Your task to perform on an android device: Open calendar and show me the third week of next month Image 0: 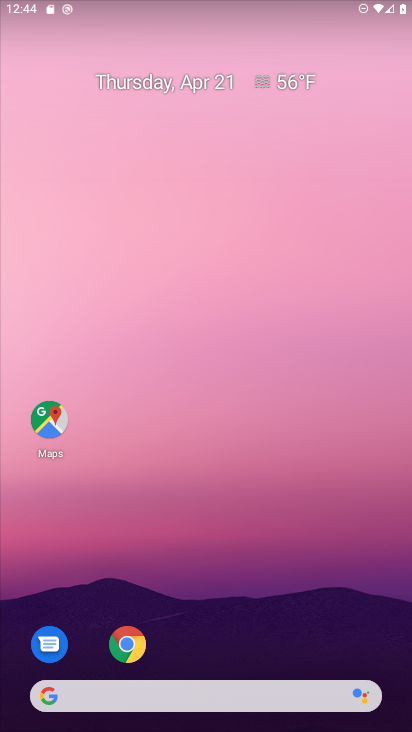
Step 0: drag from (234, 629) to (271, 106)
Your task to perform on an android device: Open calendar and show me the third week of next month Image 1: 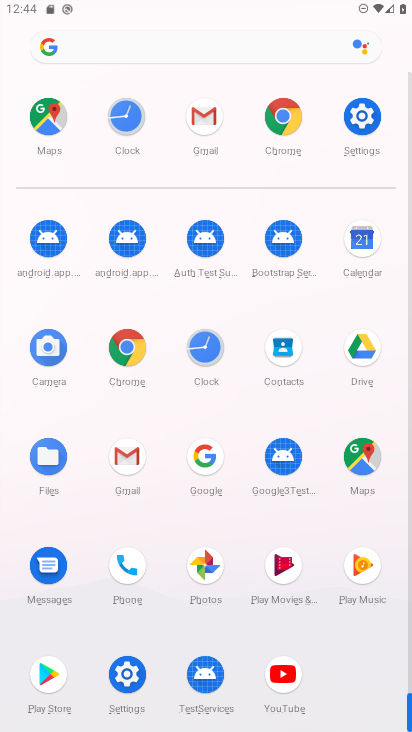
Step 1: click (356, 239)
Your task to perform on an android device: Open calendar and show me the third week of next month Image 2: 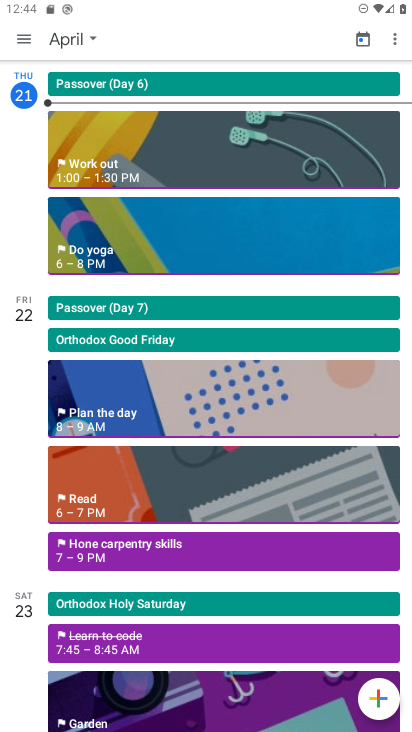
Step 2: click (67, 36)
Your task to perform on an android device: Open calendar and show me the third week of next month Image 3: 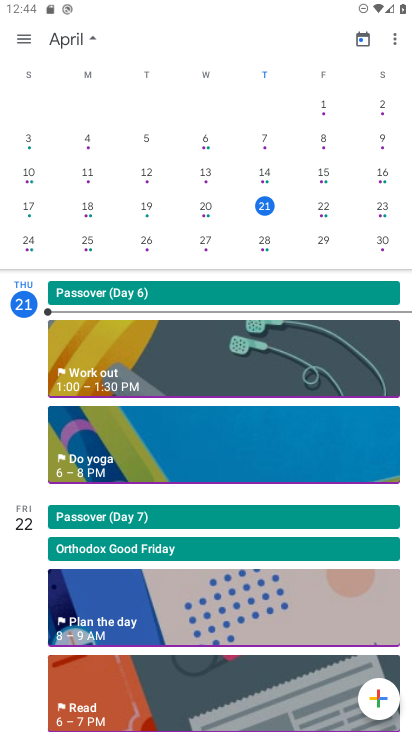
Step 3: drag from (364, 178) to (16, 206)
Your task to perform on an android device: Open calendar and show me the third week of next month Image 4: 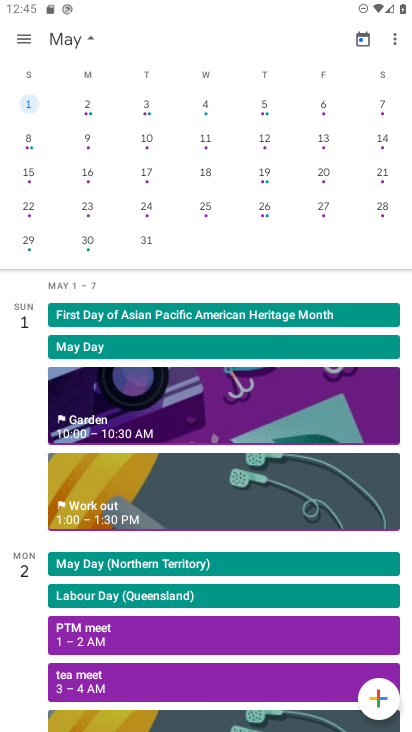
Step 4: click (146, 176)
Your task to perform on an android device: Open calendar and show me the third week of next month Image 5: 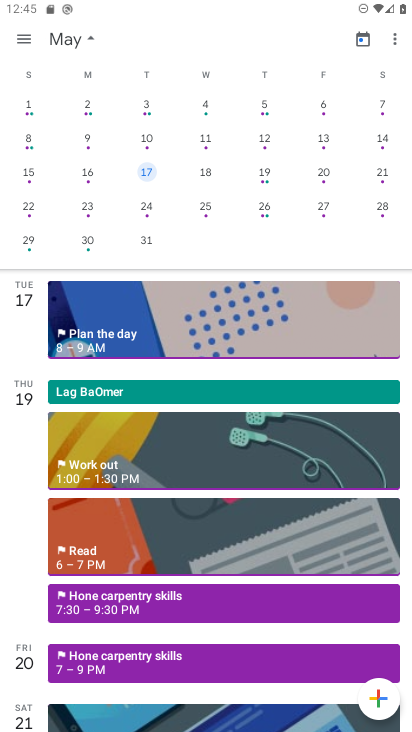
Step 5: click (17, 47)
Your task to perform on an android device: Open calendar and show me the third week of next month Image 6: 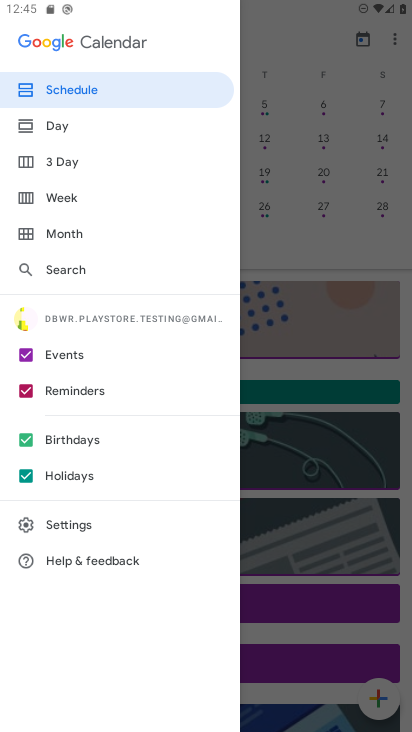
Step 6: click (83, 193)
Your task to perform on an android device: Open calendar and show me the third week of next month Image 7: 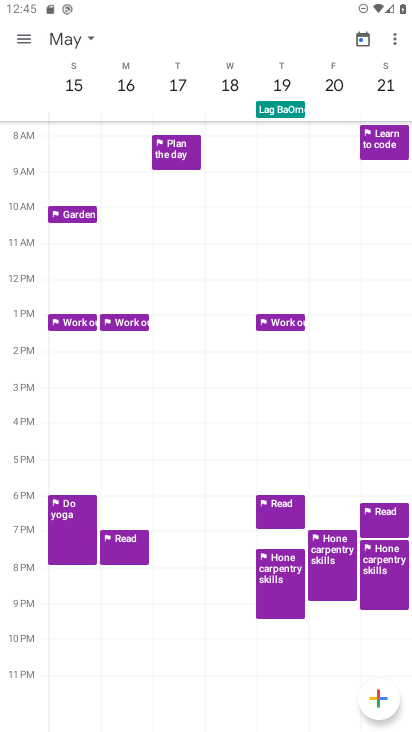
Step 7: task complete